Your task to perform on an android device: change timer sound Image 0: 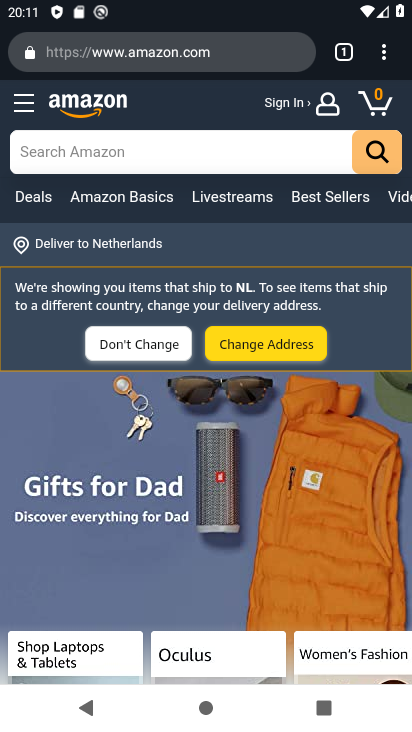
Step 0: press home button
Your task to perform on an android device: change timer sound Image 1: 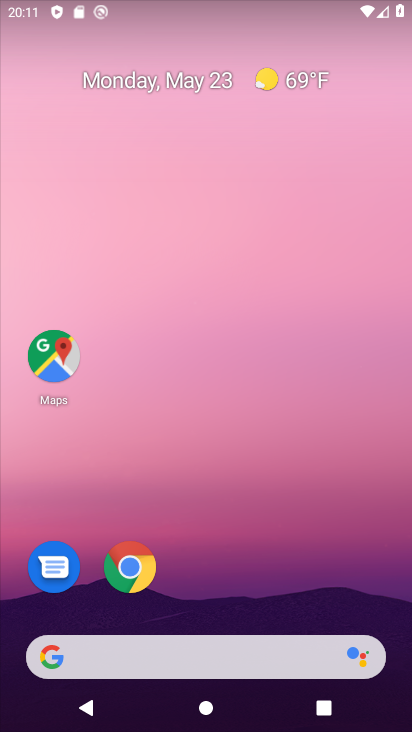
Step 1: drag from (178, 532) to (248, 10)
Your task to perform on an android device: change timer sound Image 2: 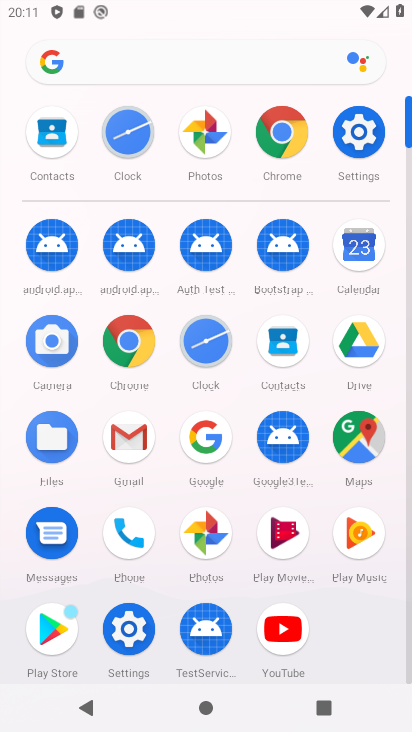
Step 2: click (213, 358)
Your task to perform on an android device: change timer sound Image 3: 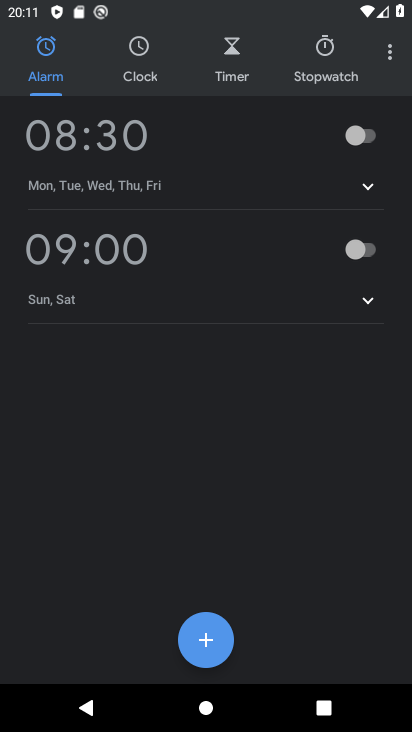
Step 3: click (400, 55)
Your task to perform on an android device: change timer sound Image 4: 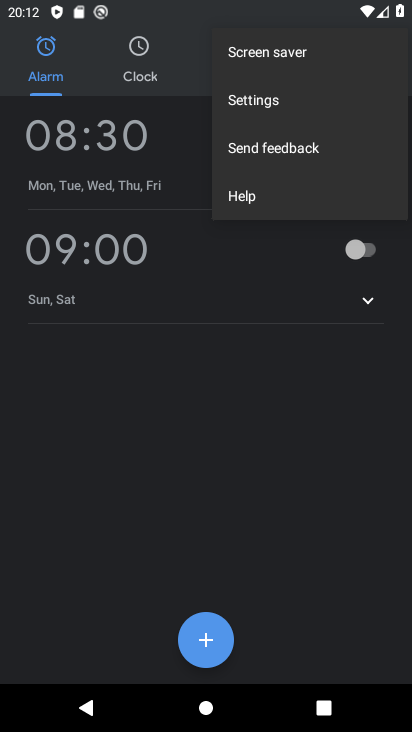
Step 4: click (237, 106)
Your task to perform on an android device: change timer sound Image 5: 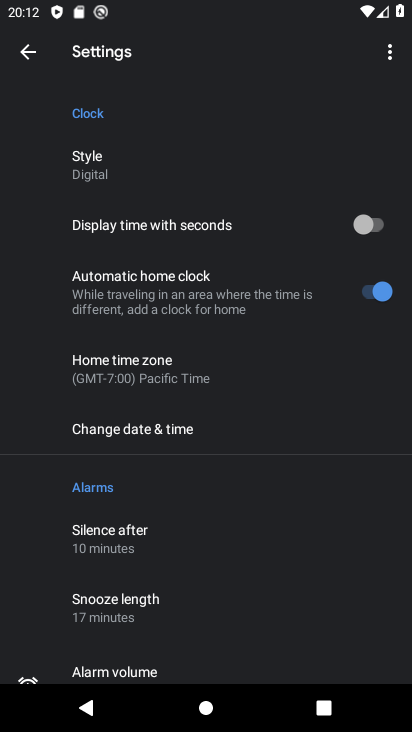
Step 5: drag from (128, 530) to (159, 310)
Your task to perform on an android device: change timer sound Image 6: 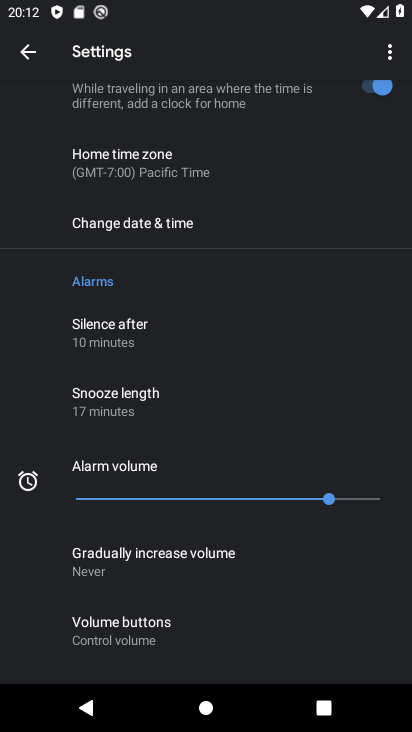
Step 6: drag from (144, 476) to (141, 241)
Your task to perform on an android device: change timer sound Image 7: 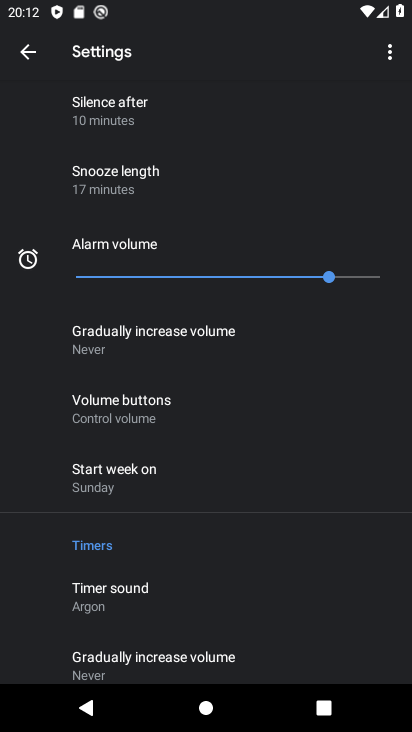
Step 7: click (118, 587)
Your task to perform on an android device: change timer sound Image 8: 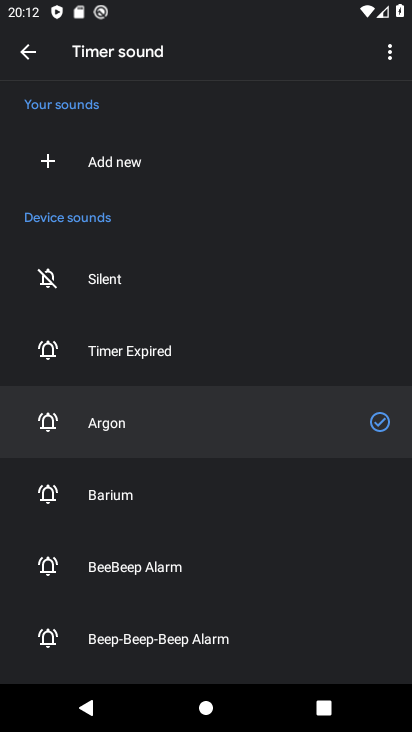
Step 8: click (132, 567)
Your task to perform on an android device: change timer sound Image 9: 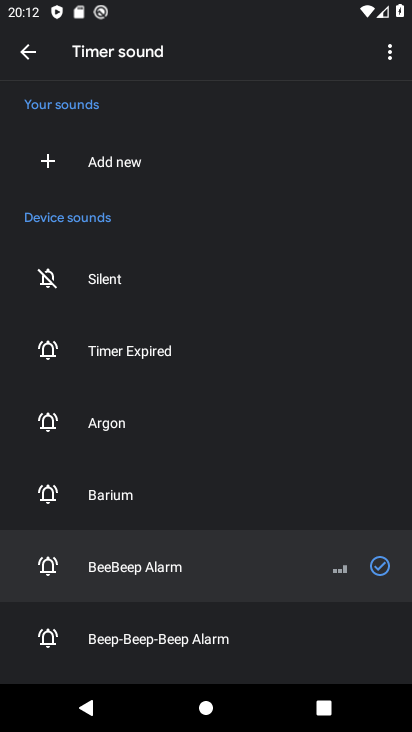
Step 9: task complete